Your task to perform on an android device: turn on notifications settings in the gmail app Image 0: 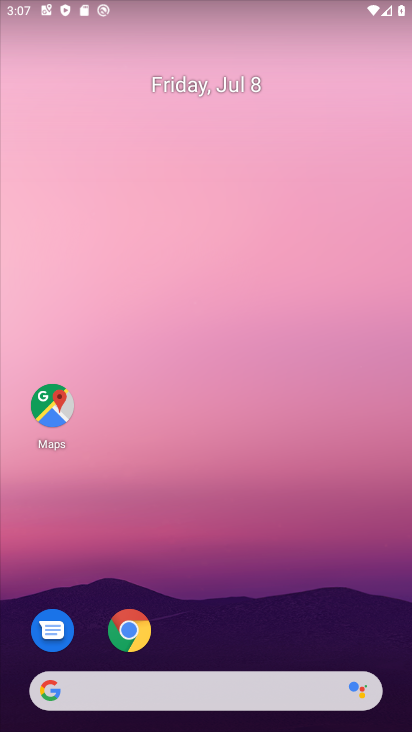
Step 0: drag from (316, 624) to (238, 91)
Your task to perform on an android device: turn on notifications settings in the gmail app Image 1: 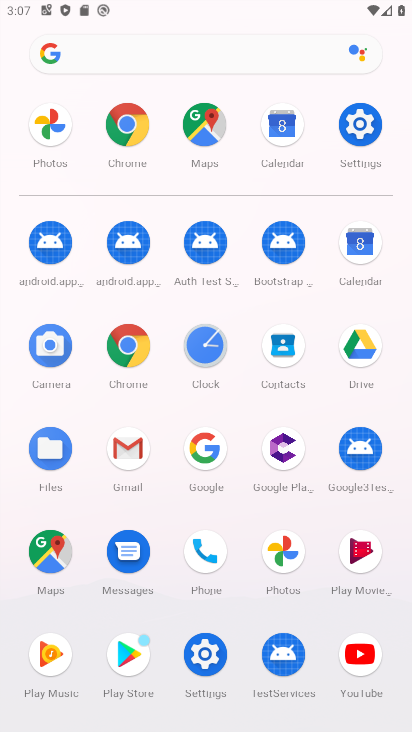
Step 1: click (122, 152)
Your task to perform on an android device: turn on notifications settings in the gmail app Image 2: 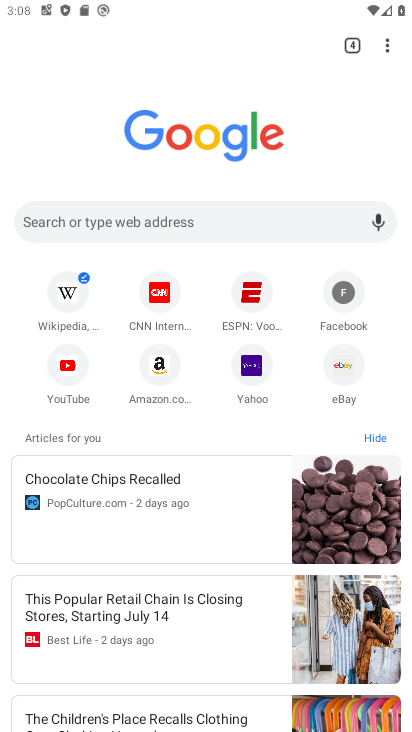
Step 2: click (389, 53)
Your task to perform on an android device: turn on notifications settings in the gmail app Image 3: 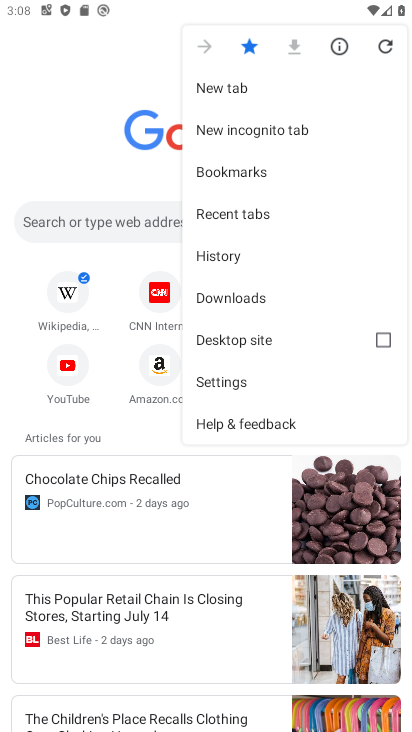
Step 3: click (257, 389)
Your task to perform on an android device: turn on notifications settings in the gmail app Image 4: 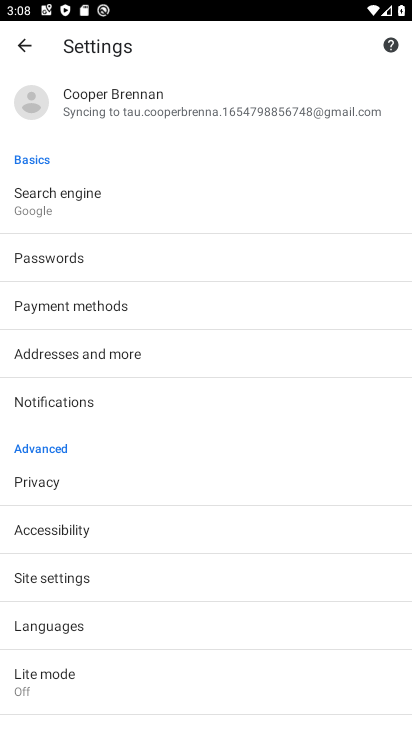
Step 4: click (91, 567)
Your task to perform on an android device: turn on notifications settings in the gmail app Image 5: 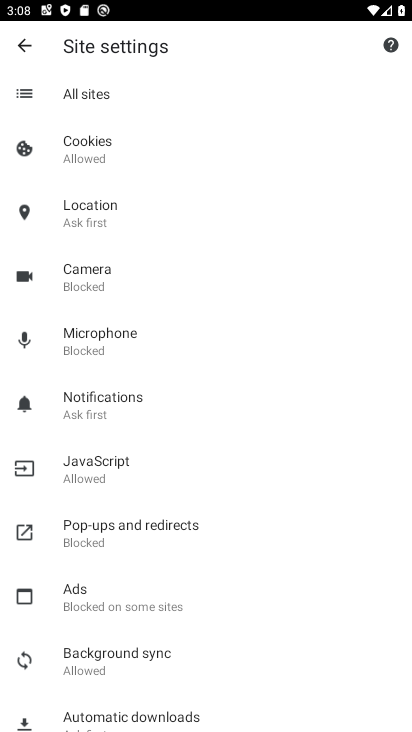
Step 5: task complete